Your task to perform on an android device: Go to accessibility settings Image 0: 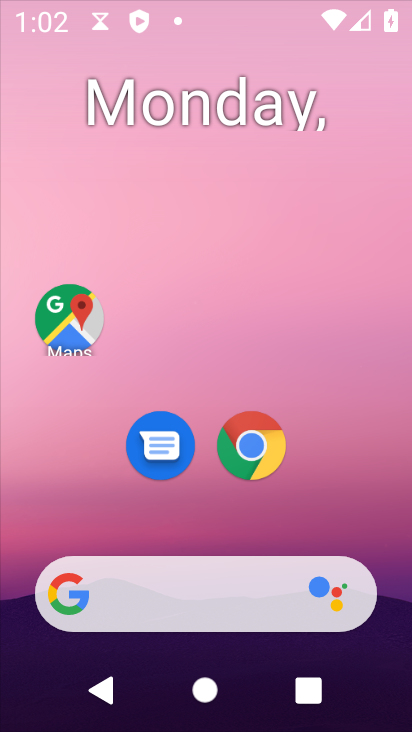
Step 0: drag from (359, 684) to (240, 237)
Your task to perform on an android device: Go to accessibility settings Image 1: 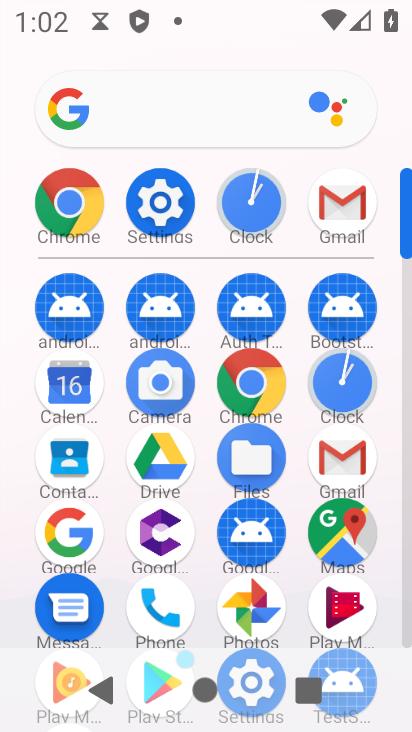
Step 1: click (137, 196)
Your task to perform on an android device: Go to accessibility settings Image 2: 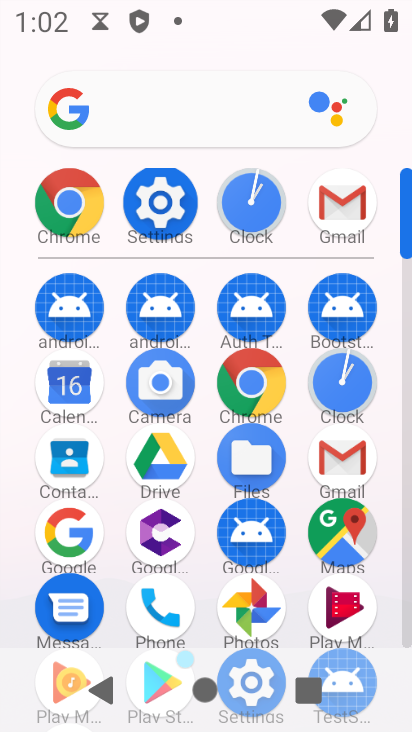
Step 2: click (149, 197)
Your task to perform on an android device: Go to accessibility settings Image 3: 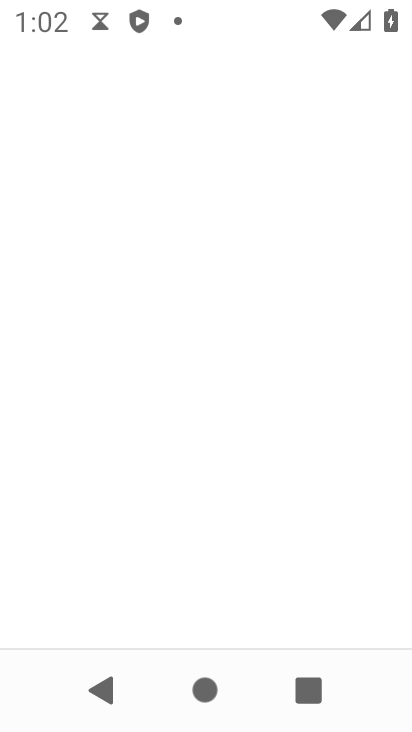
Step 3: click (152, 197)
Your task to perform on an android device: Go to accessibility settings Image 4: 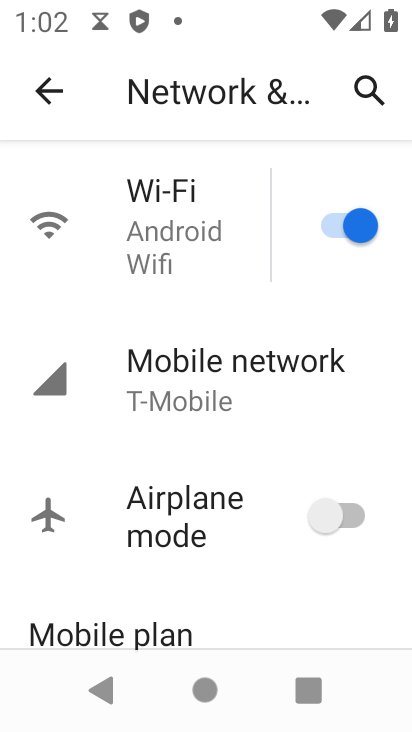
Step 4: click (37, 95)
Your task to perform on an android device: Go to accessibility settings Image 5: 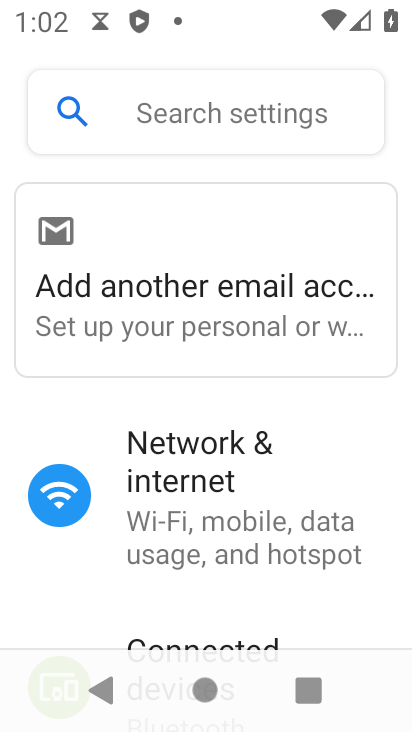
Step 5: drag from (226, 505) to (216, 190)
Your task to perform on an android device: Go to accessibility settings Image 6: 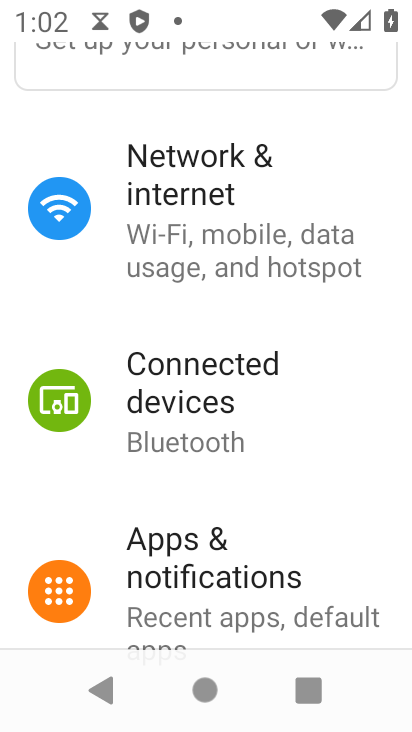
Step 6: drag from (280, 411) to (281, 123)
Your task to perform on an android device: Go to accessibility settings Image 7: 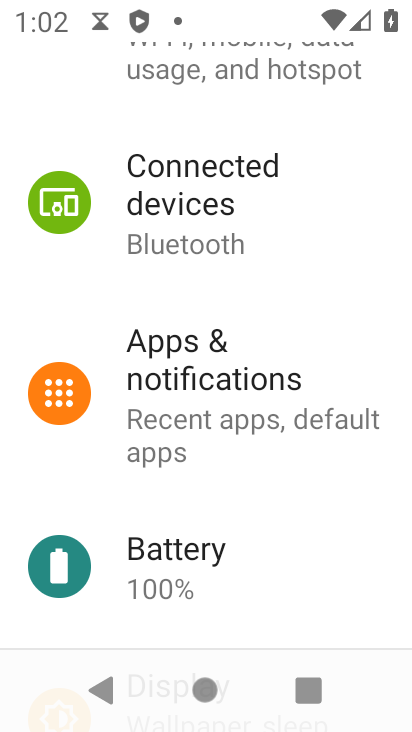
Step 7: drag from (233, 431) to (232, 147)
Your task to perform on an android device: Go to accessibility settings Image 8: 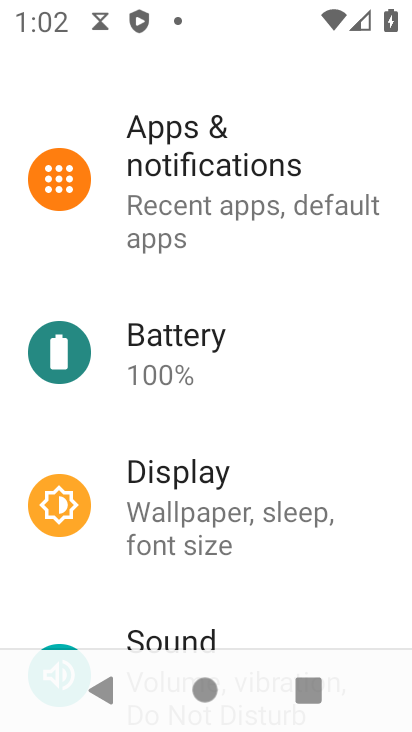
Step 8: drag from (239, 408) to (227, 155)
Your task to perform on an android device: Go to accessibility settings Image 9: 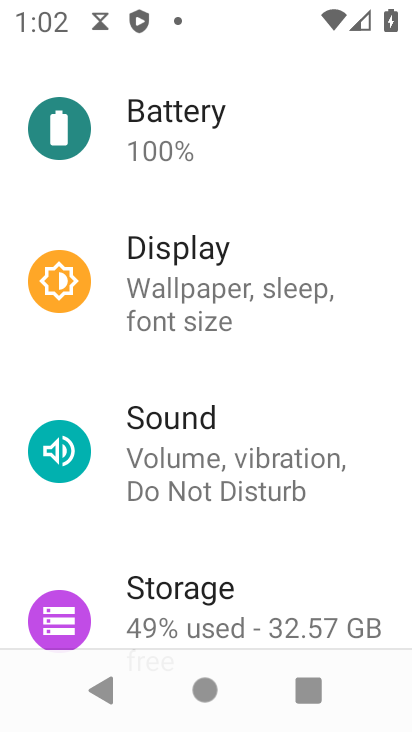
Step 9: drag from (237, 441) to (250, 149)
Your task to perform on an android device: Go to accessibility settings Image 10: 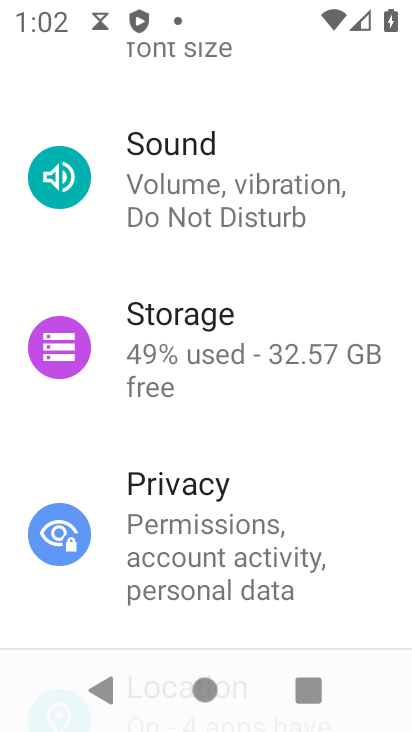
Step 10: drag from (243, 411) to (260, 51)
Your task to perform on an android device: Go to accessibility settings Image 11: 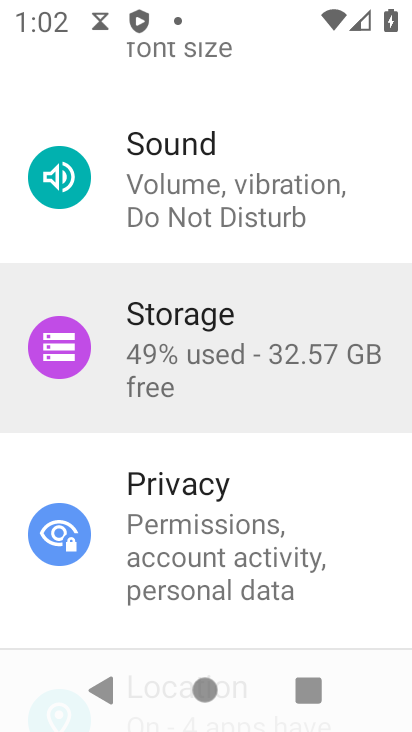
Step 11: drag from (264, 391) to (252, 72)
Your task to perform on an android device: Go to accessibility settings Image 12: 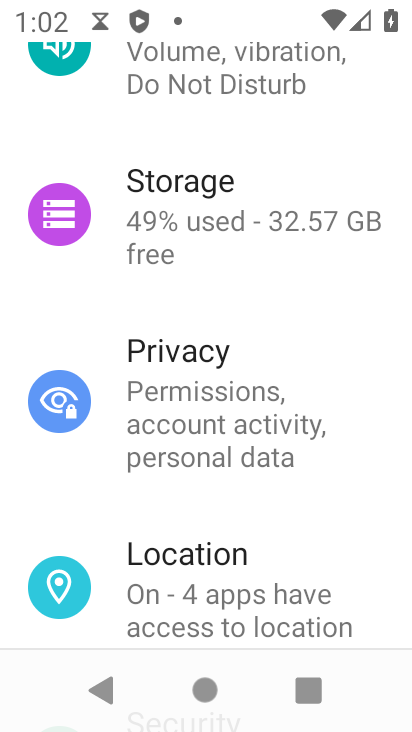
Step 12: drag from (197, 311) to (187, 138)
Your task to perform on an android device: Go to accessibility settings Image 13: 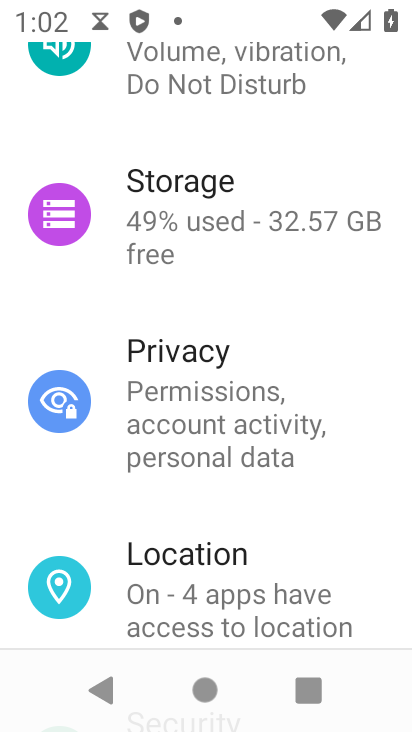
Step 13: drag from (240, 400) to (240, 60)
Your task to perform on an android device: Go to accessibility settings Image 14: 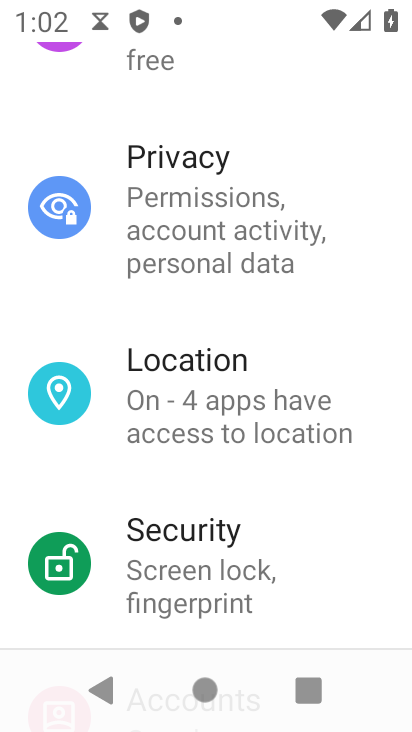
Step 14: drag from (205, 439) to (215, 124)
Your task to perform on an android device: Go to accessibility settings Image 15: 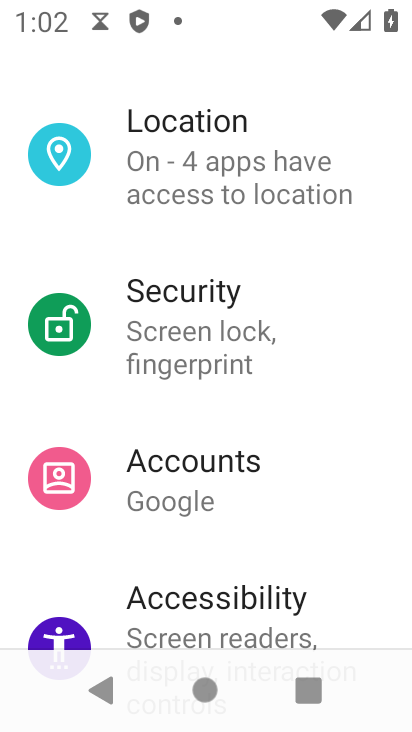
Step 15: drag from (215, 473) to (275, 165)
Your task to perform on an android device: Go to accessibility settings Image 16: 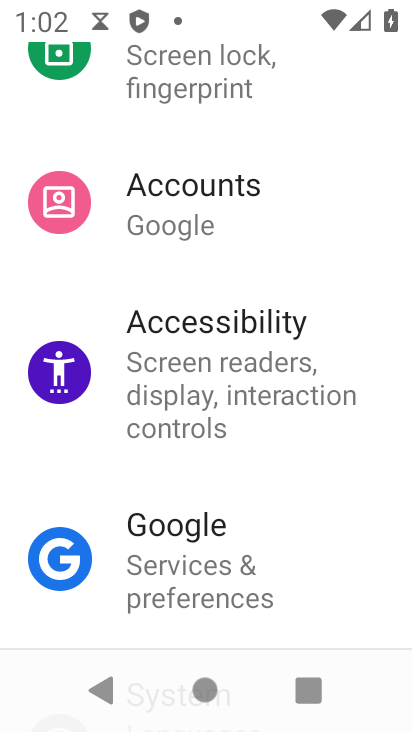
Step 16: drag from (298, 501) to (272, 150)
Your task to perform on an android device: Go to accessibility settings Image 17: 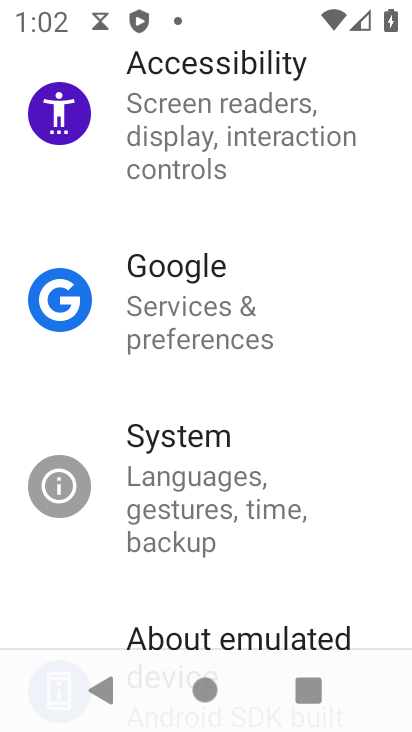
Step 17: click (213, 381)
Your task to perform on an android device: Go to accessibility settings Image 18: 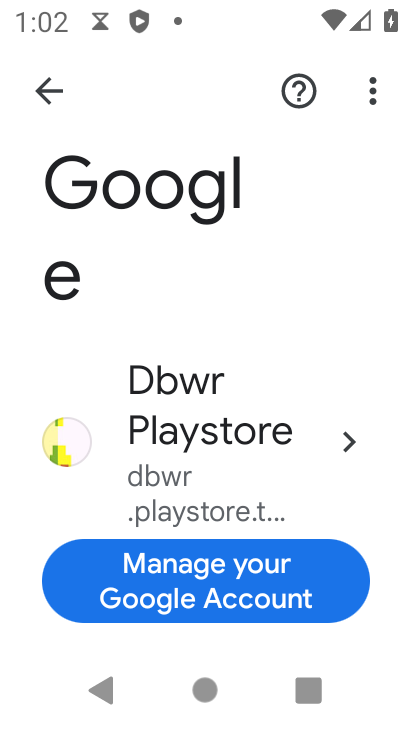
Step 18: press back button
Your task to perform on an android device: Go to accessibility settings Image 19: 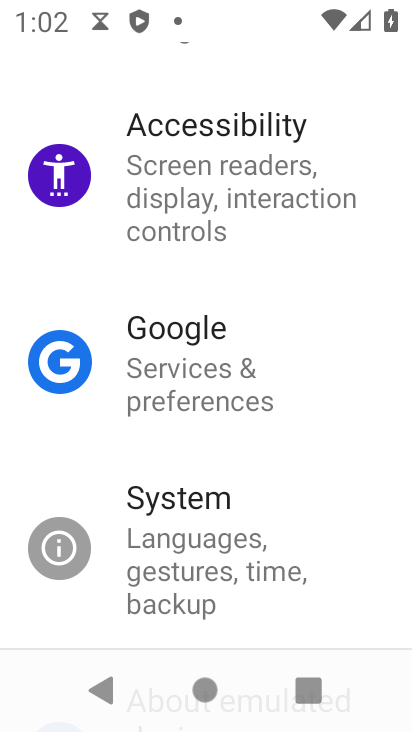
Step 19: click (195, 199)
Your task to perform on an android device: Go to accessibility settings Image 20: 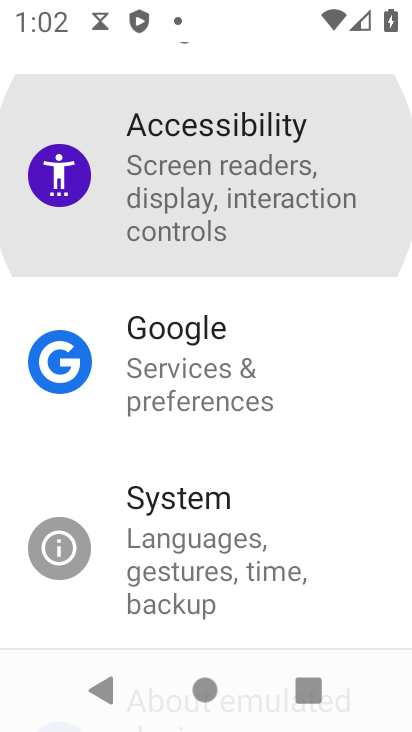
Step 20: click (195, 199)
Your task to perform on an android device: Go to accessibility settings Image 21: 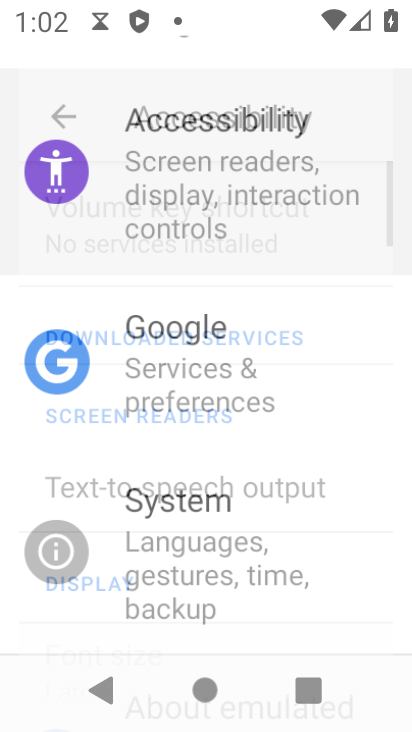
Step 21: click (192, 196)
Your task to perform on an android device: Go to accessibility settings Image 22: 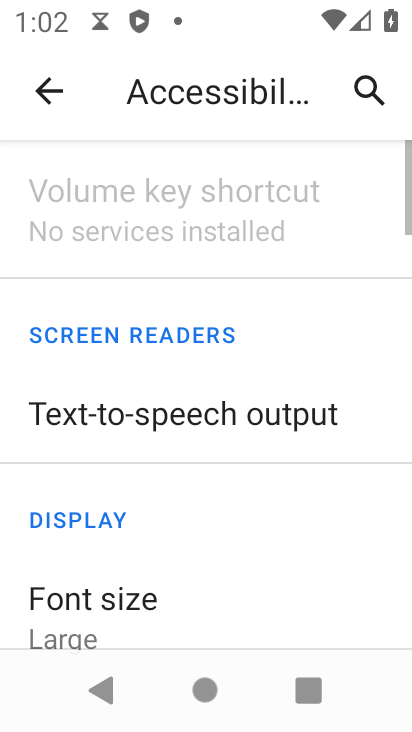
Step 22: click (192, 196)
Your task to perform on an android device: Go to accessibility settings Image 23: 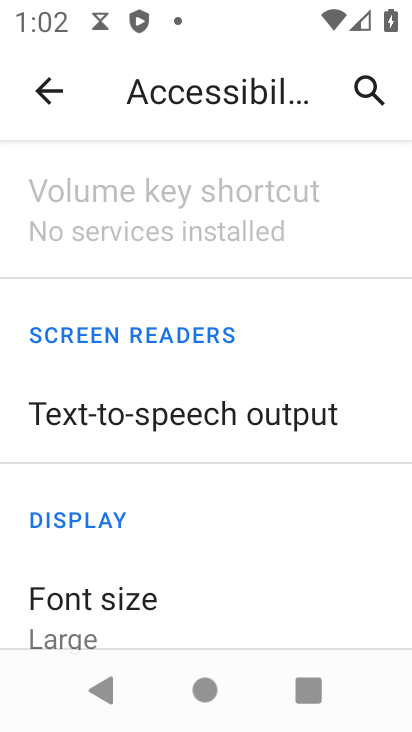
Step 23: task complete